Your task to perform on an android device: What's the weather going to be this weekend? Image 0: 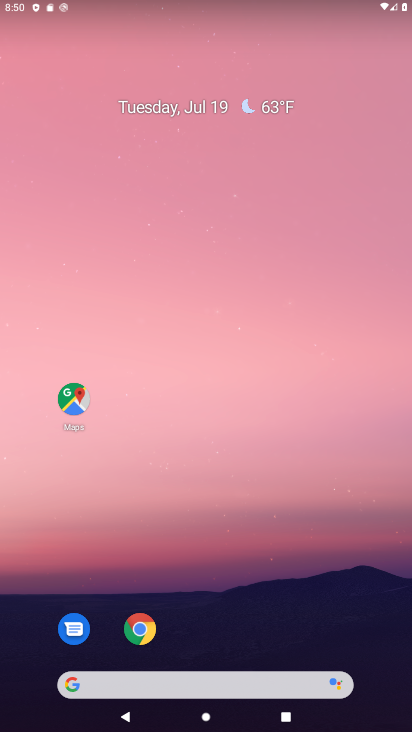
Step 0: press home button
Your task to perform on an android device: What's the weather going to be this weekend? Image 1: 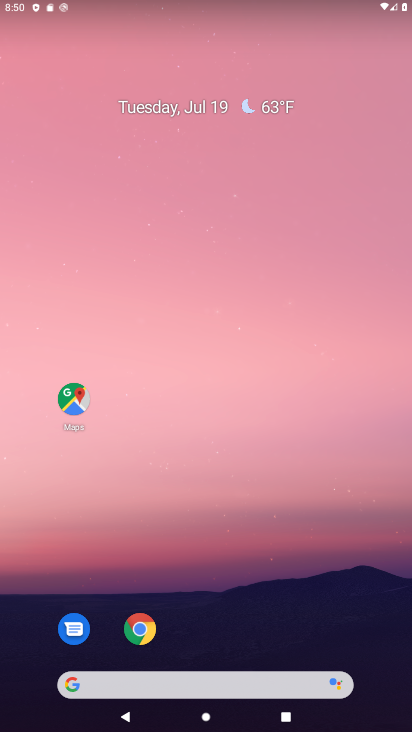
Step 1: drag from (216, 649) to (262, 93)
Your task to perform on an android device: What's the weather going to be this weekend? Image 2: 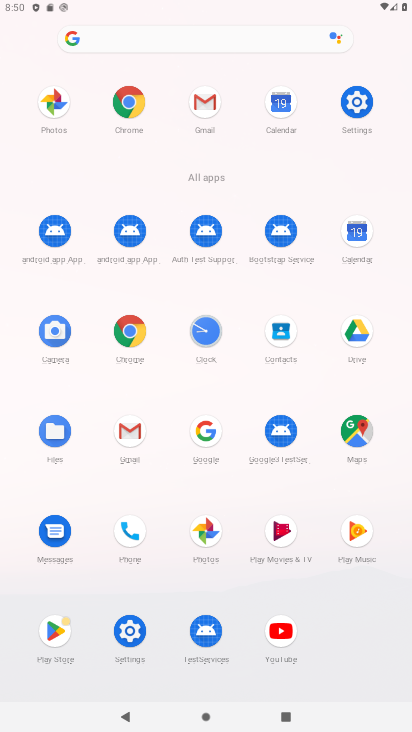
Step 2: press back button
Your task to perform on an android device: What's the weather going to be this weekend? Image 3: 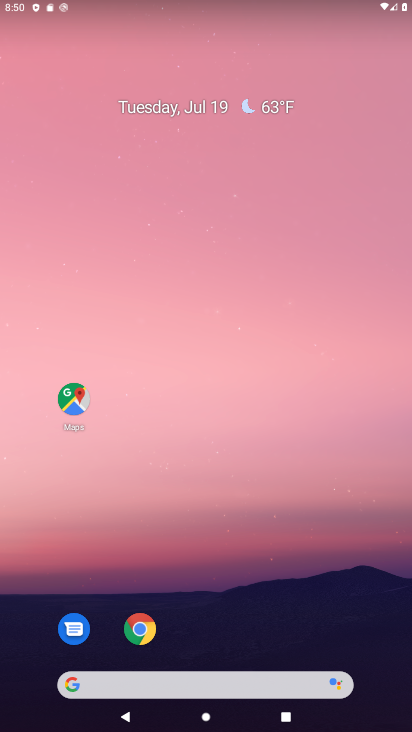
Step 3: click (269, 103)
Your task to perform on an android device: What's the weather going to be this weekend? Image 4: 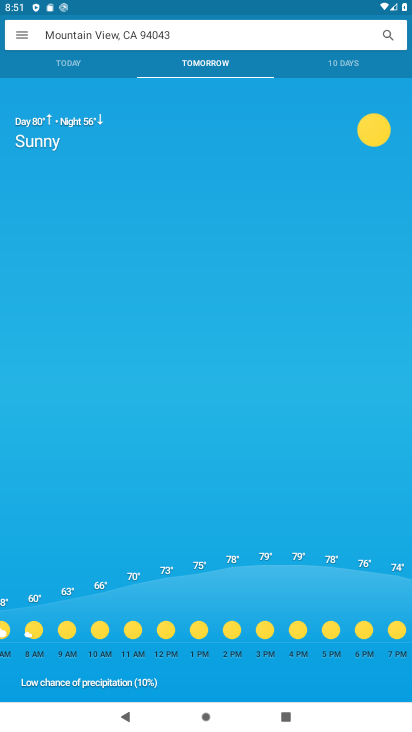
Step 4: click (349, 62)
Your task to perform on an android device: What's the weather going to be this weekend? Image 5: 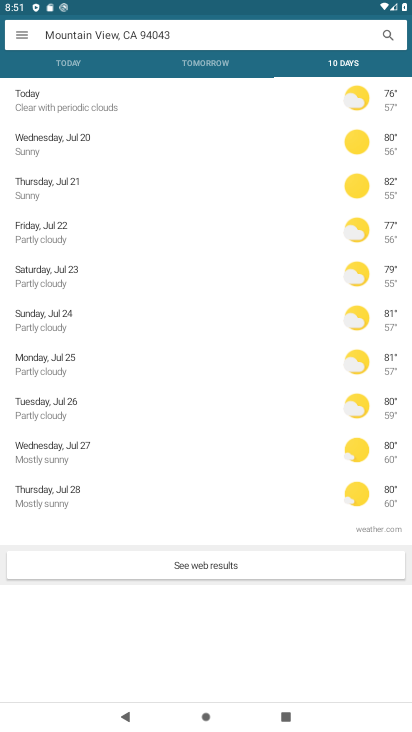
Step 5: task complete